Your task to perform on an android device: Go to location settings Image 0: 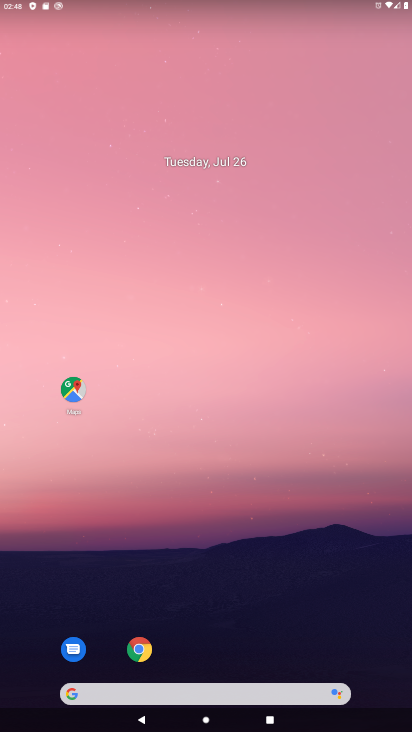
Step 0: drag from (188, 697) to (341, 38)
Your task to perform on an android device: Go to location settings Image 1: 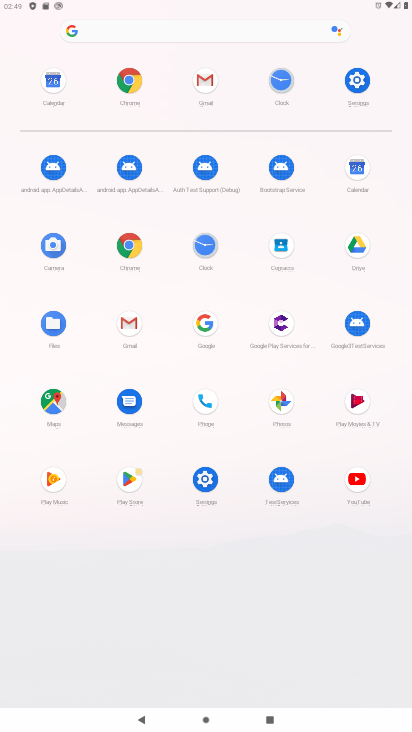
Step 1: click (358, 81)
Your task to perform on an android device: Go to location settings Image 2: 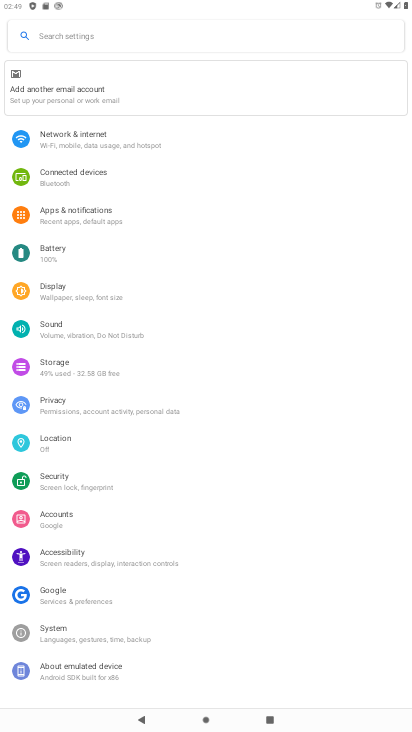
Step 2: click (54, 438)
Your task to perform on an android device: Go to location settings Image 3: 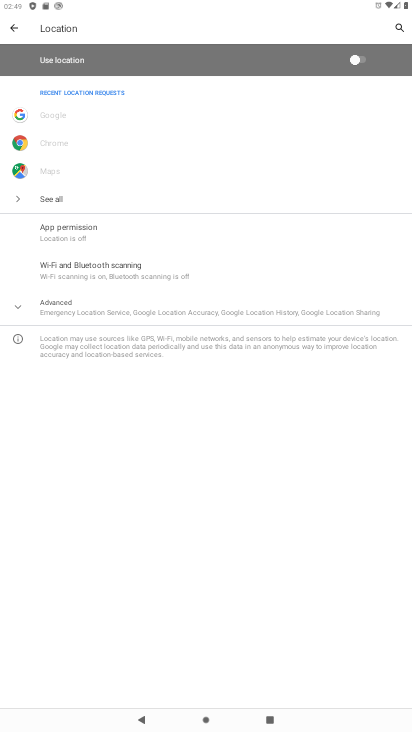
Step 3: task complete